Your task to perform on an android device: Open Chrome and go to settings Image 0: 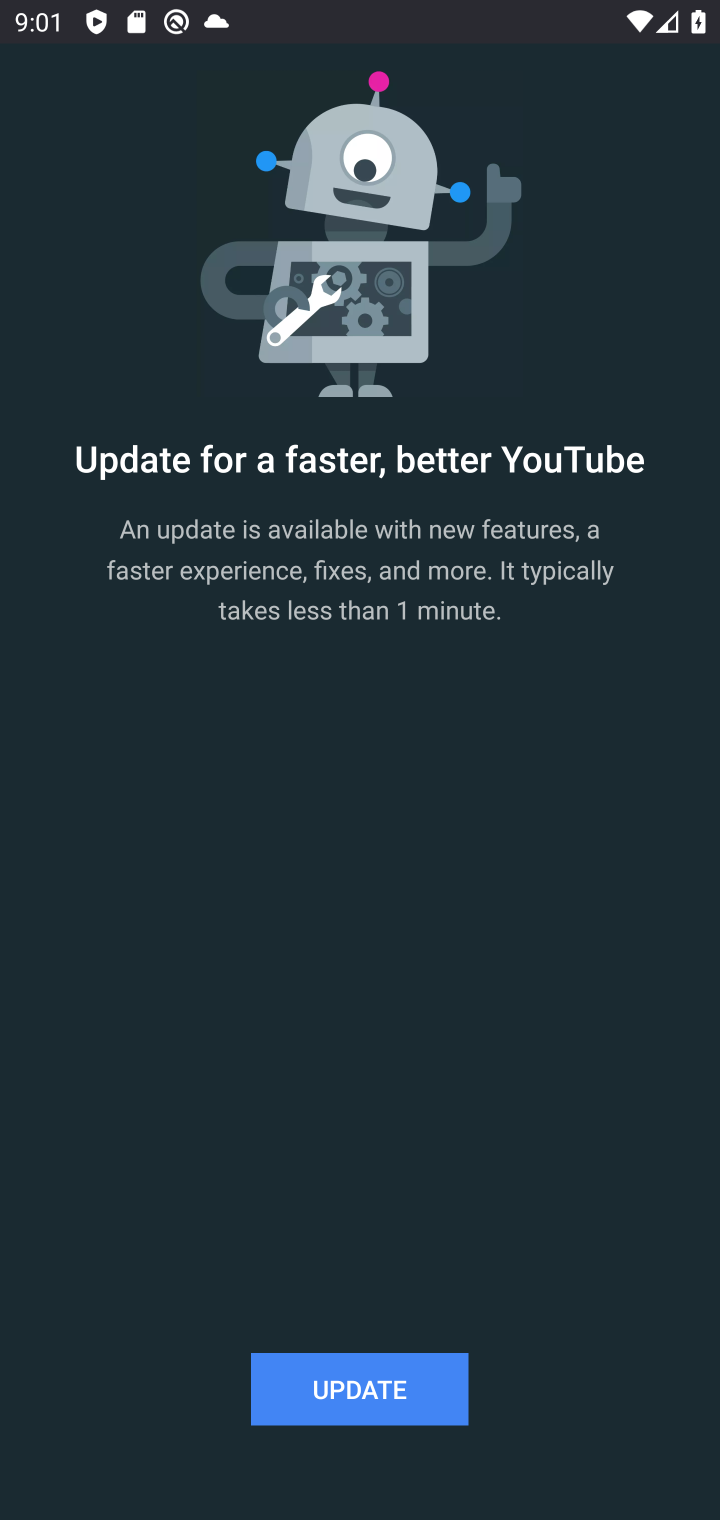
Step 0: press home button
Your task to perform on an android device: Open Chrome and go to settings Image 1: 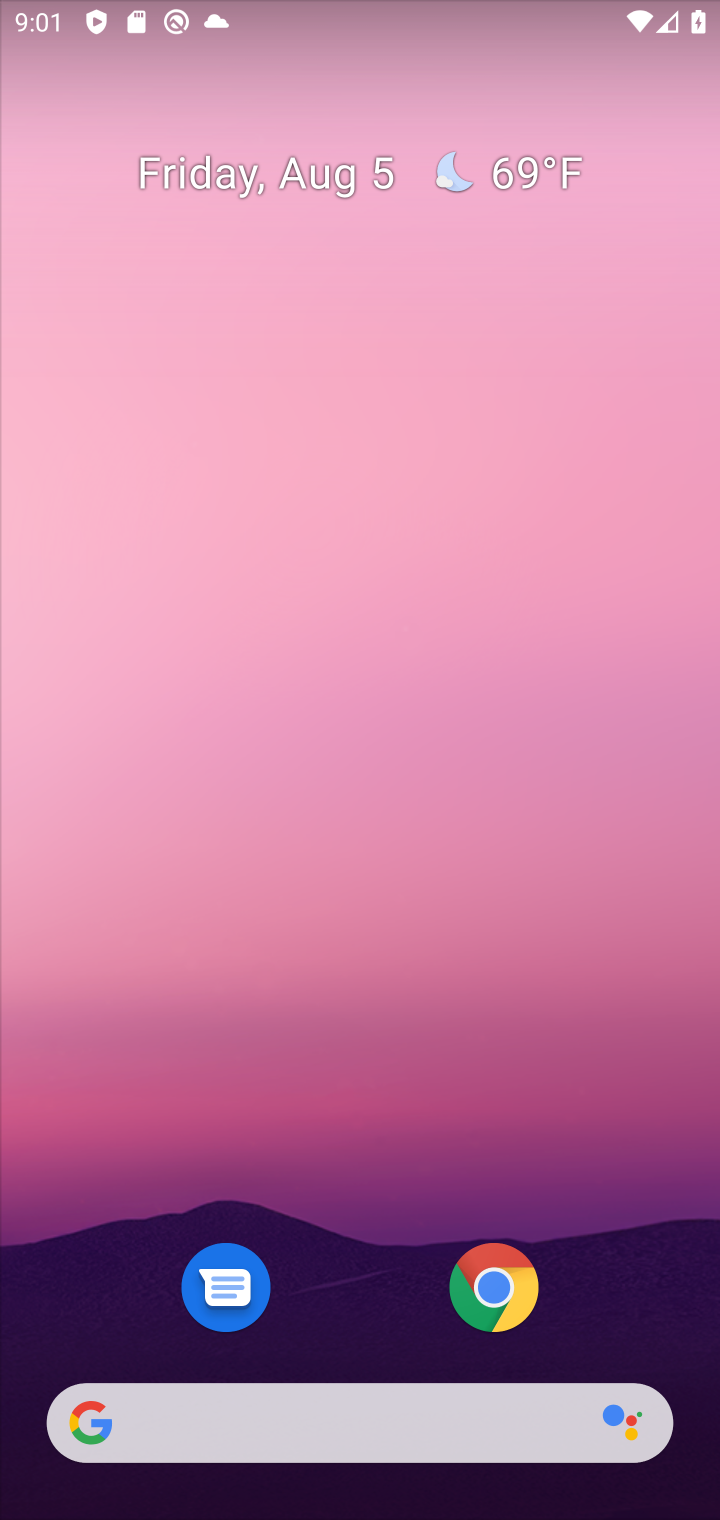
Step 1: click (500, 1286)
Your task to perform on an android device: Open Chrome and go to settings Image 2: 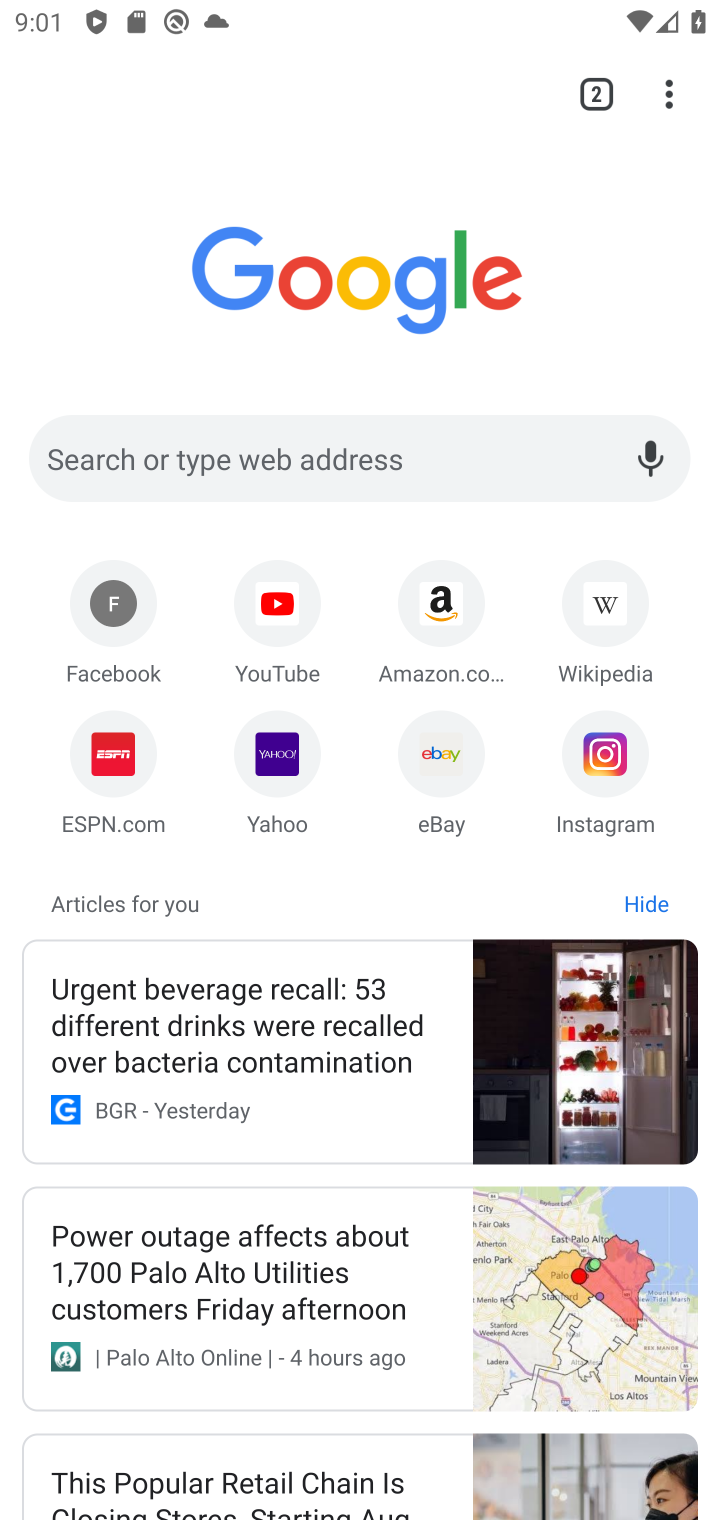
Step 2: click (670, 109)
Your task to perform on an android device: Open Chrome and go to settings Image 3: 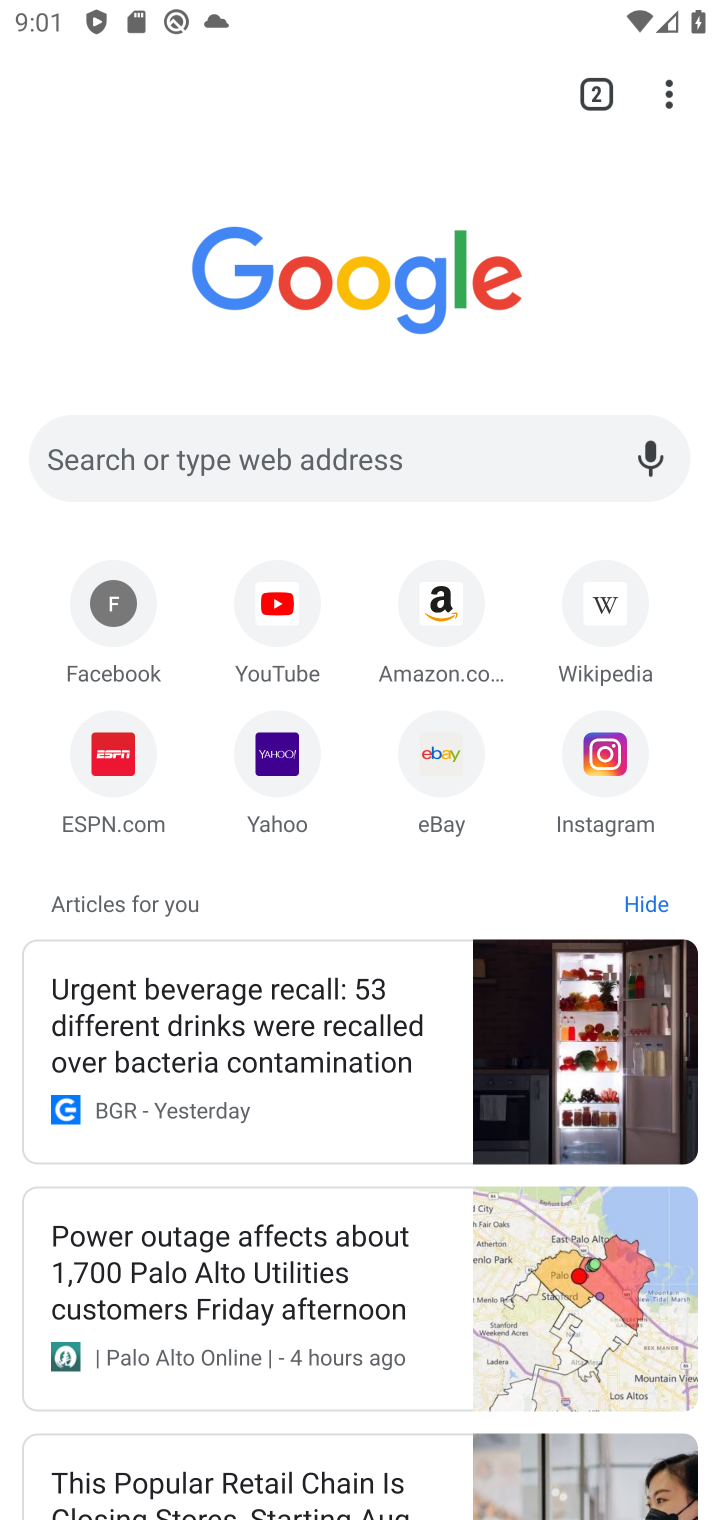
Step 3: click (669, 90)
Your task to perform on an android device: Open Chrome and go to settings Image 4: 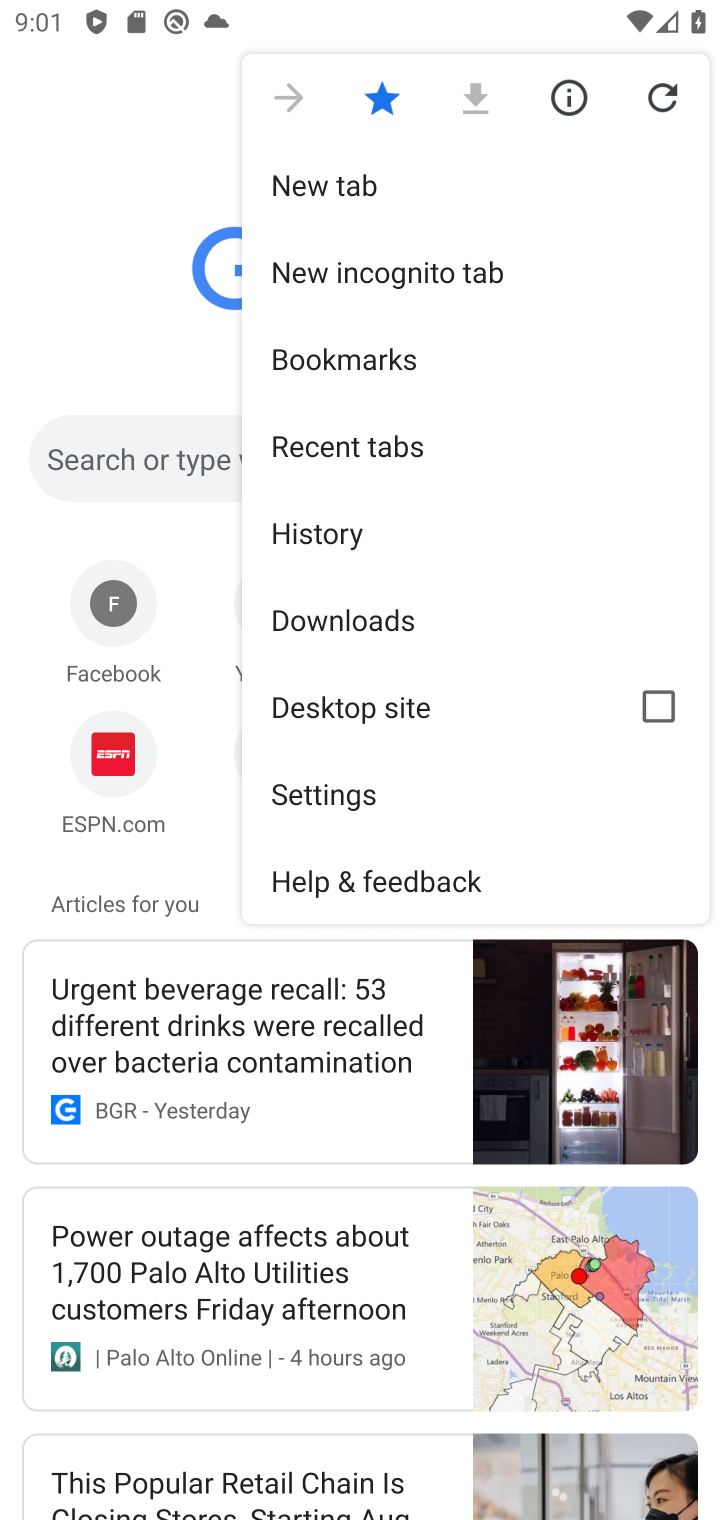
Step 4: click (342, 790)
Your task to perform on an android device: Open Chrome and go to settings Image 5: 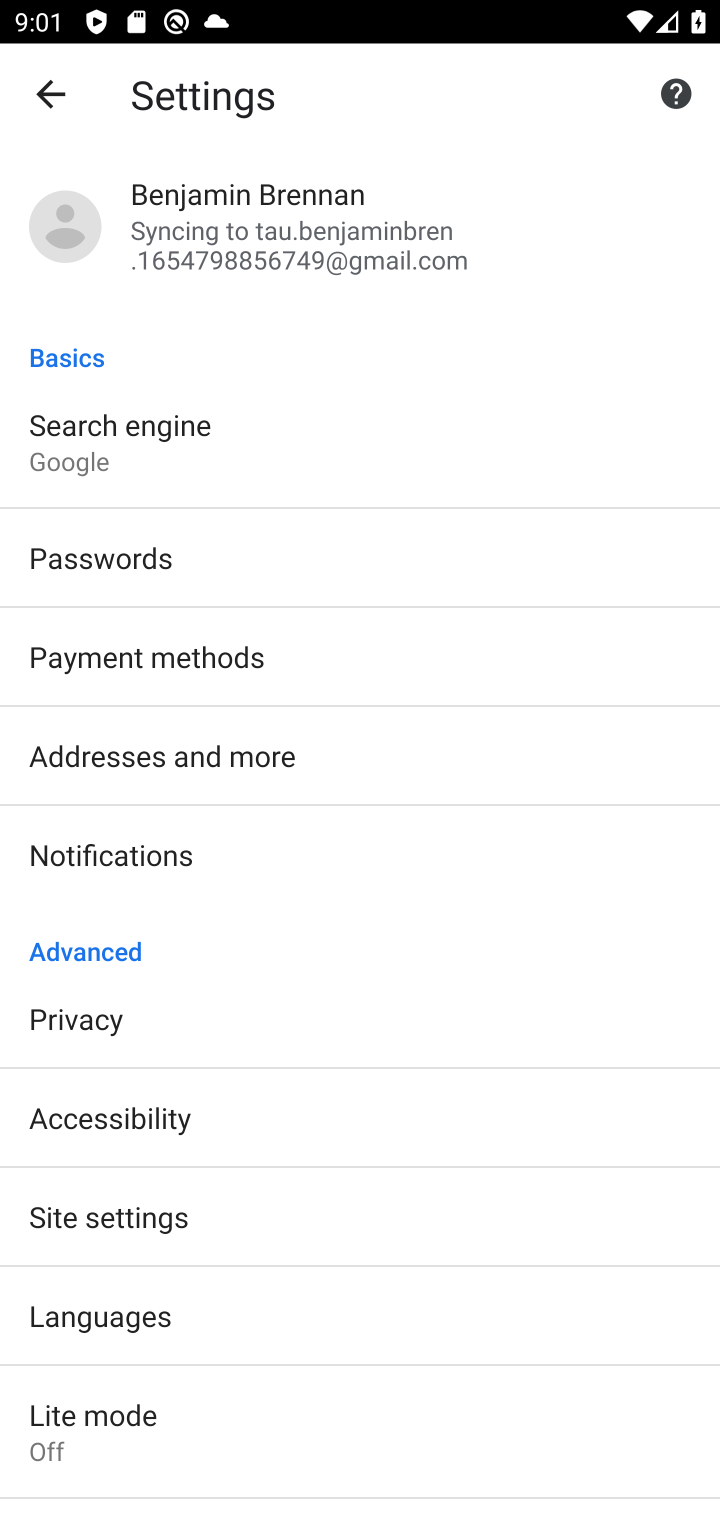
Step 5: task complete